Your task to perform on an android device: toggle wifi Image 0: 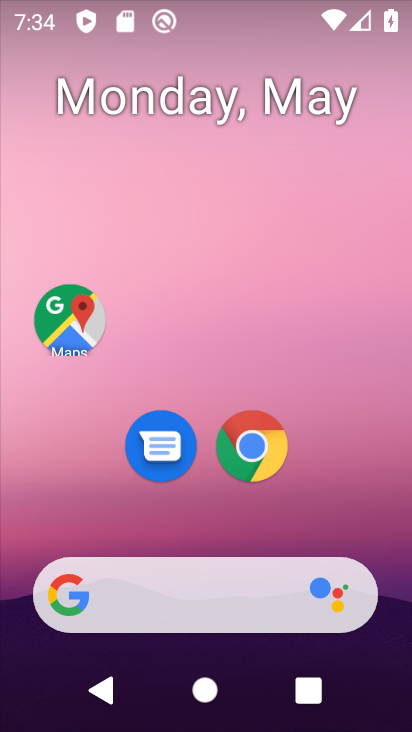
Step 0: drag from (357, 545) to (285, 34)
Your task to perform on an android device: toggle wifi Image 1: 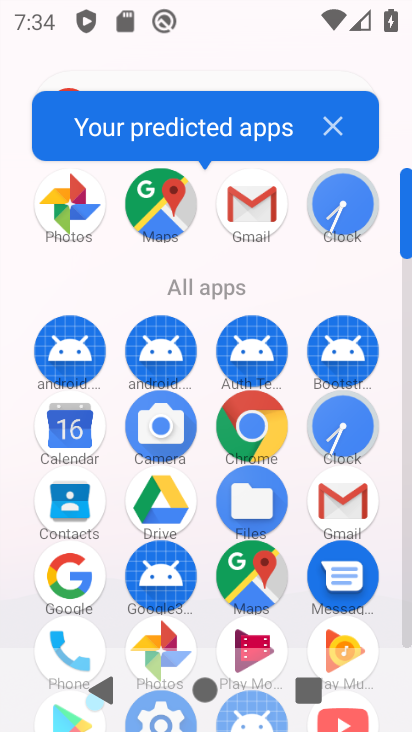
Step 1: drag from (406, 475) to (409, 437)
Your task to perform on an android device: toggle wifi Image 2: 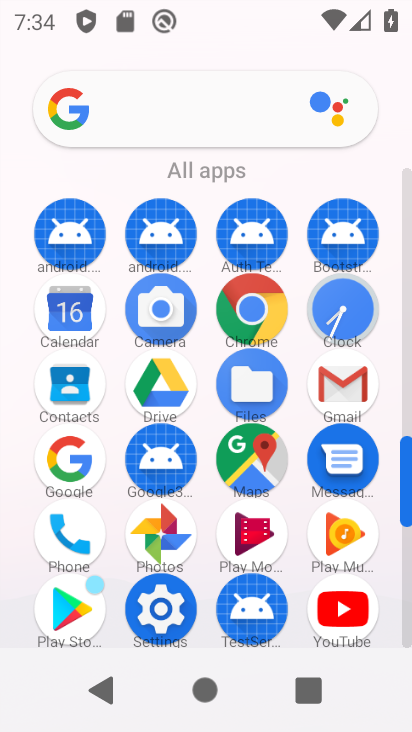
Step 2: click (163, 612)
Your task to perform on an android device: toggle wifi Image 3: 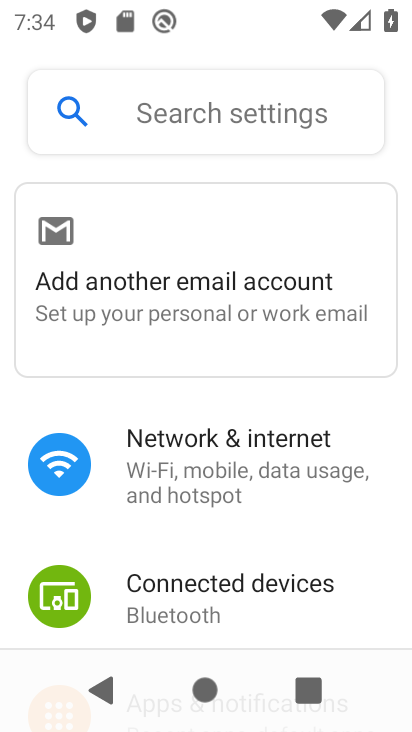
Step 3: click (172, 460)
Your task to perform on an android device: toggle wifi Image 4: 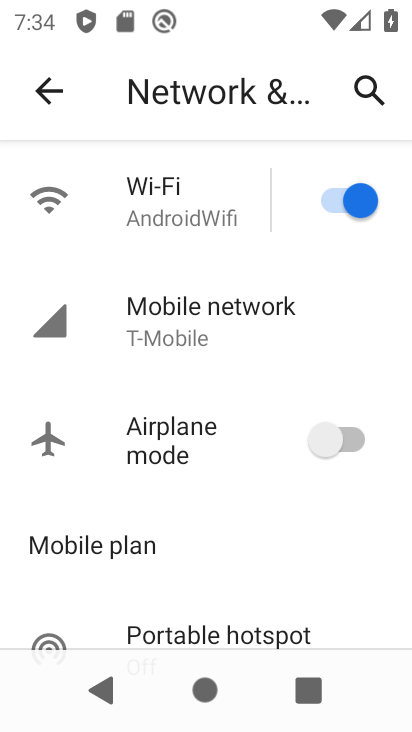
Step 4: click (353, 194)
Your task to perform on an android device: toggle wifi Image 5: 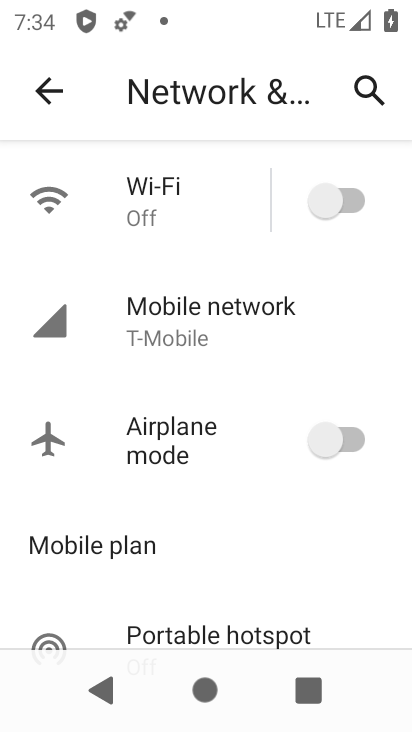
Step 5: task complete